Your task to perform on an android device: change the upload size in google photos Image 0: 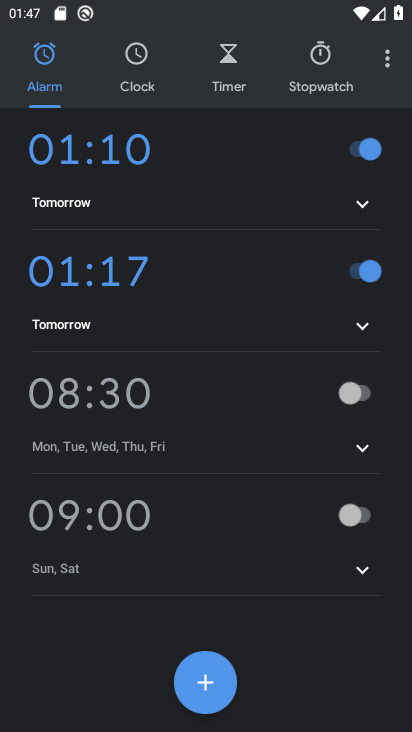
Step 0: press home button
Your task to perform on an android device: change the upload size in google photos Image 1: 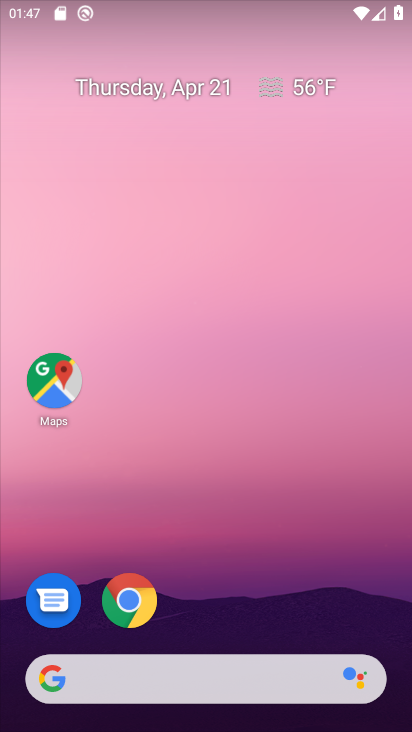
Step 1: drag from (225, 589) to (324, 113)
Your task to perform on an android device: change the upload size in google photos Image 2: 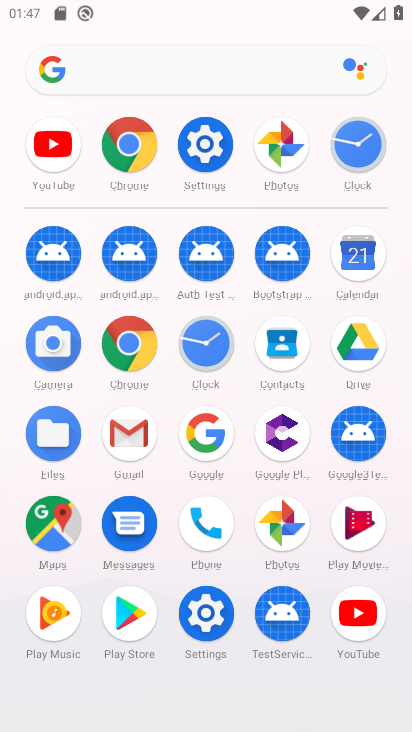
Step 2: click (283, 158)
Your task to perform on an android device: change the upload size in google photos Image 3: 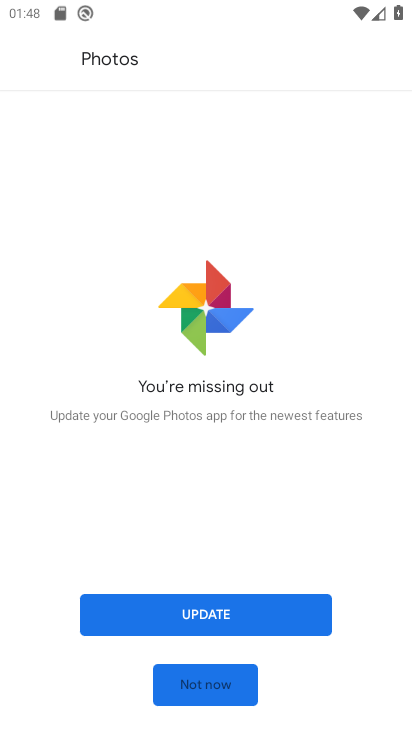
Step 3: click (252, 607)
Your task to perform on an android device: change the upload size in google photos Image 4: 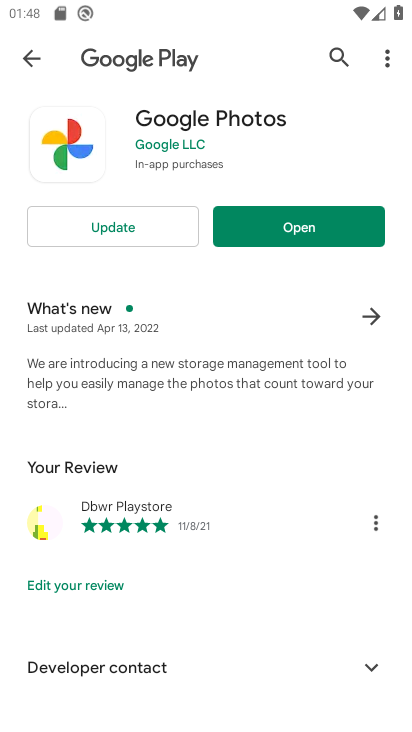
Step 4: click (328, 223)
Your task to perform on an android device: change the upload size in google photos Image 5: 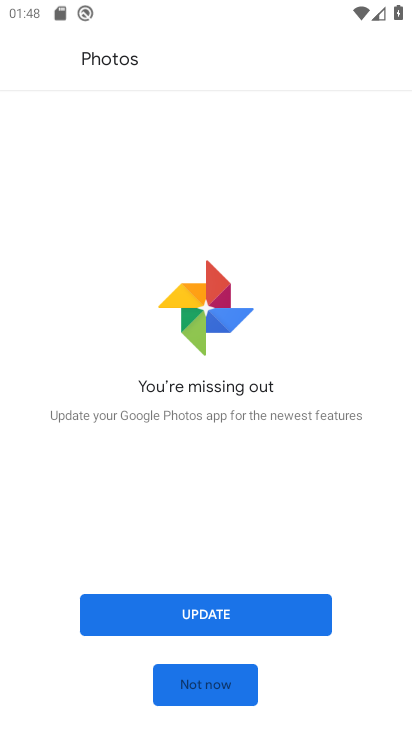
Step 5: click (241, 609)
Your task to perform on an android device: change the upload size in google photos Image 6: 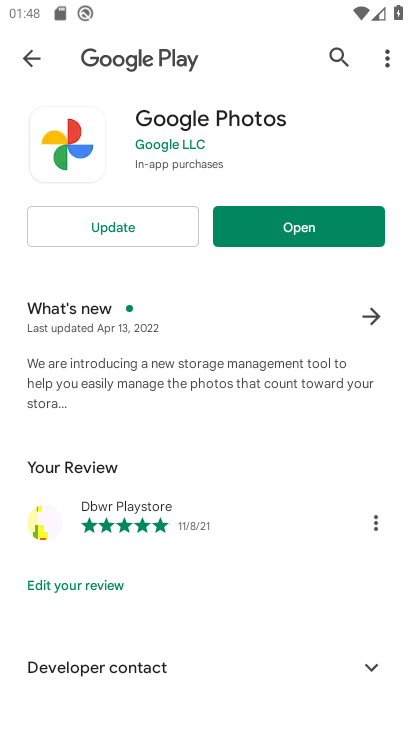
Step 6: click (130, 226)
Your task to perform on an android device: change the upload size in google photos Image 7: 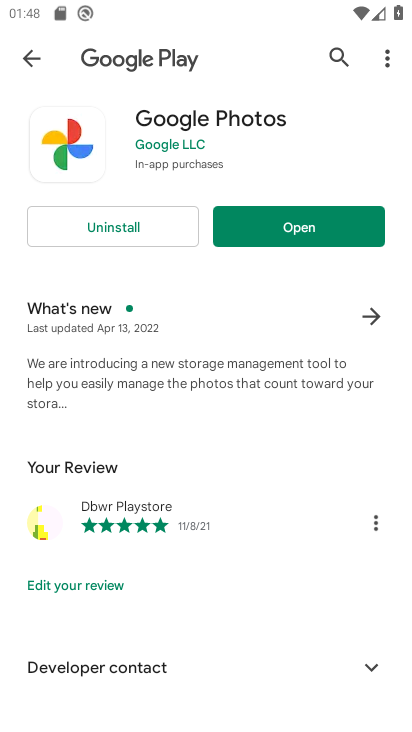
Step 7: click (238, 230)
Your task to perform on an android device: change the upload size in google photos Image 8: 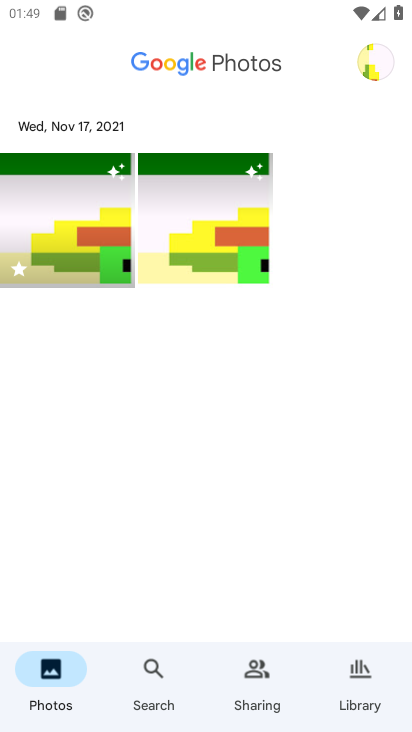
Step 8: click (377, 57)
Your task to perform on an android device: change the upload size in google photos Image 9: 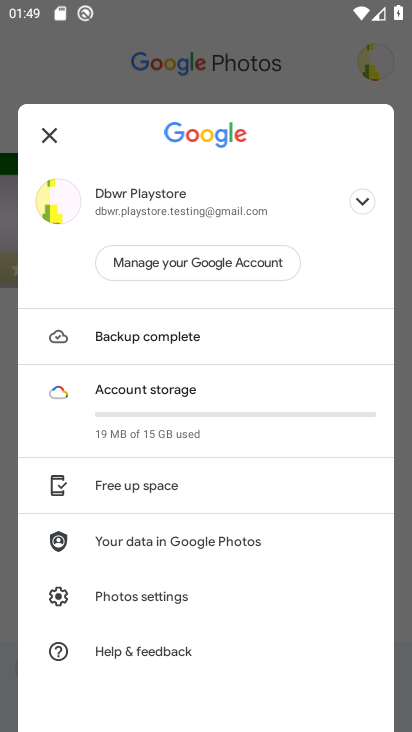
Step 9: click (201, 196)
Your task to perform on an android device: change the upload size in google photos Image 10: 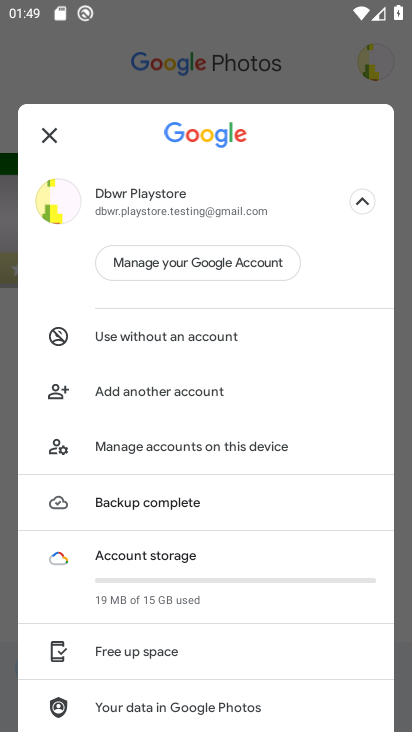
Step 10: drag from (237, 643) to (255, 386)
Your task to perform on an android device: change the upload size in google photos Image 11: 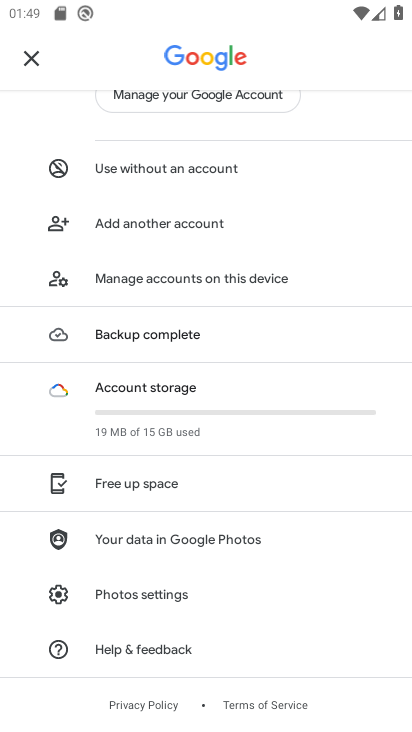
Step 11: click (163, 597)
Your task to perform on an android device: change the upload size in google photos Image 12: 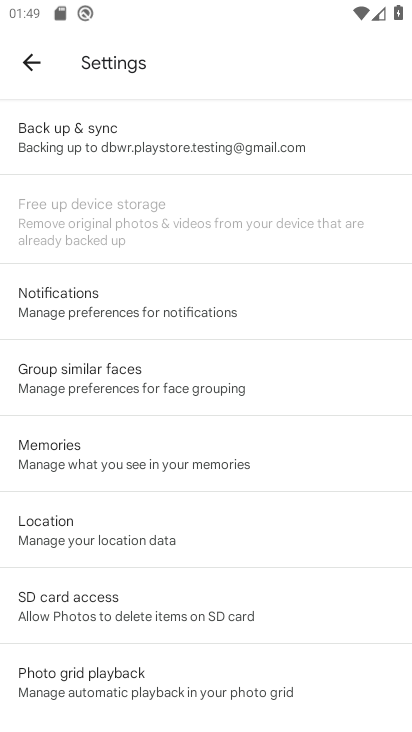
Step 12: click (212, 141)
Your task to perform on an android device: change the upload size in google photos Image 13: 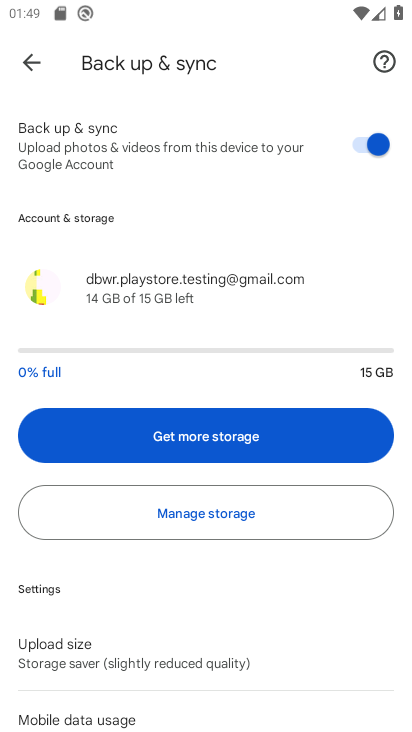
Step 13: drag from (160, 615) to (193, 377)
Your task to perform on an android device: change the upload size in google photos Image 14: 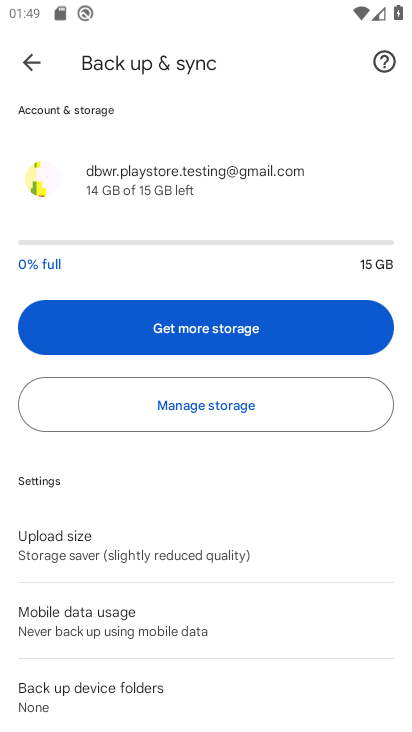
Step 14: click (209, 546)
Your task to perform on an android device: change the upload size in google photos Image 15: 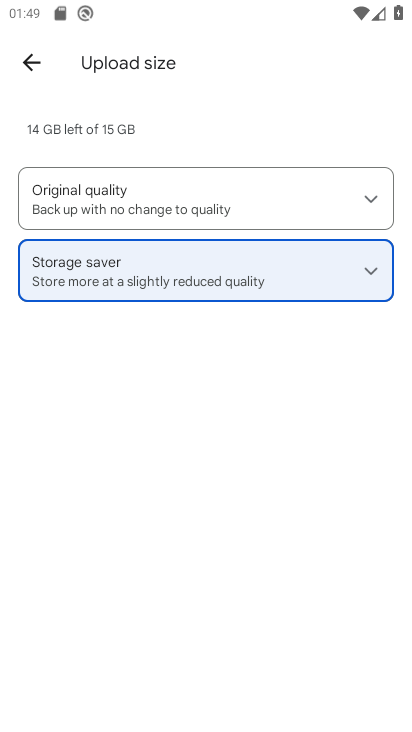
Step 15: click (232, 188)
Your task to perform on an android device: change the upload size in google photos Image 16: 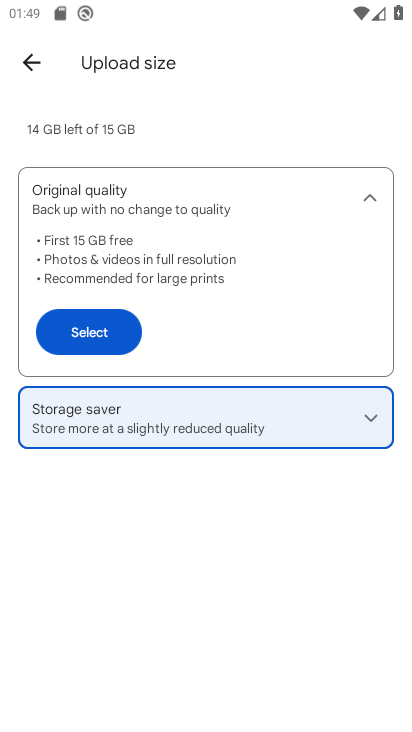
Step 16: click (96, 341)
Your task to perform on an android device: change the upload size in google photos Image 17: 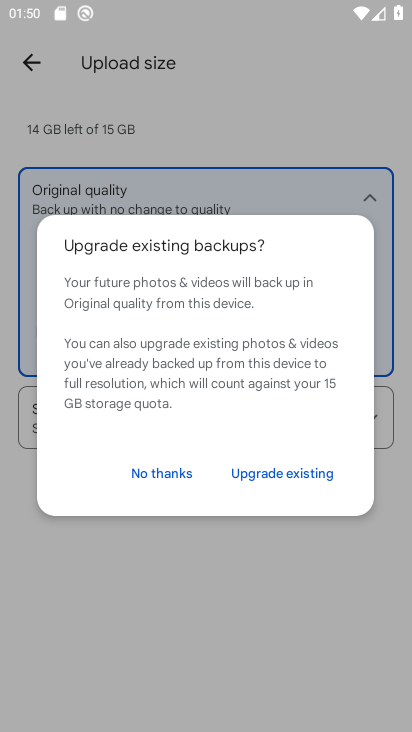
Step 17: click (288, 469)
Your task to perform on an android device: change the upload size in google photos Image 18: 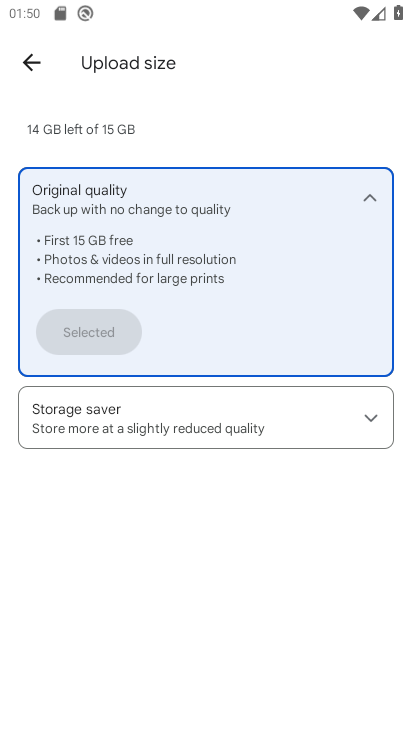
Step 18: task complete